Your task to perform on an android device: change notifications settings Image 0: 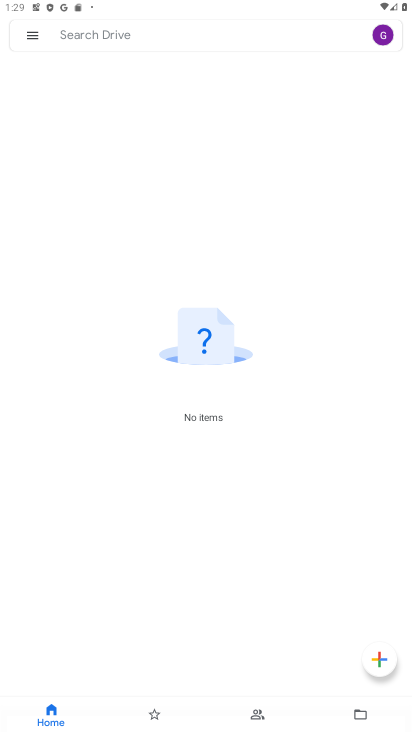
Step 0: press home button
Your task to perform on an android device: change notifications settings Image 1: 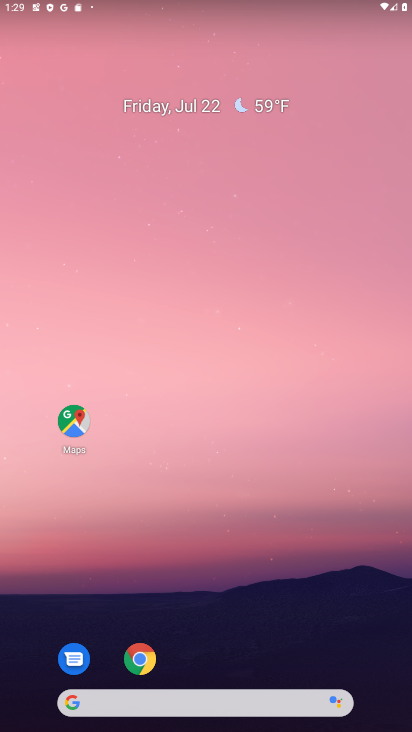
Step 1: drag from (374, 583) to (262, 1)
Your task to perform on an android device: change notifications settings Image 2: 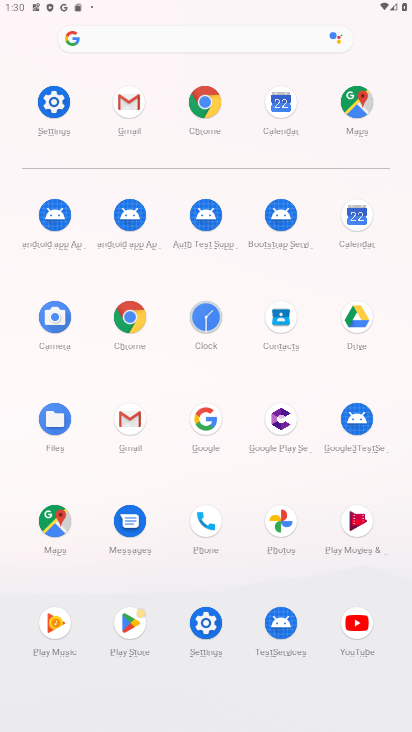
Step 2: click (56, 93)
Your task to perform on an android device: change notifications settings Image 3: 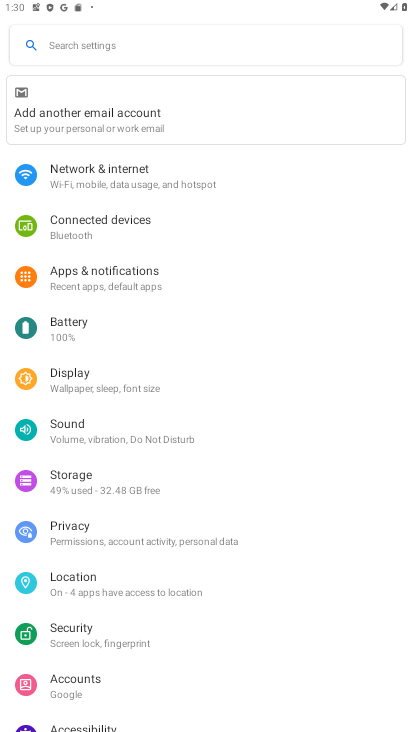
Step 3: click (134, 283)
Your task to perform on an android device: change notifications settings Image 4: 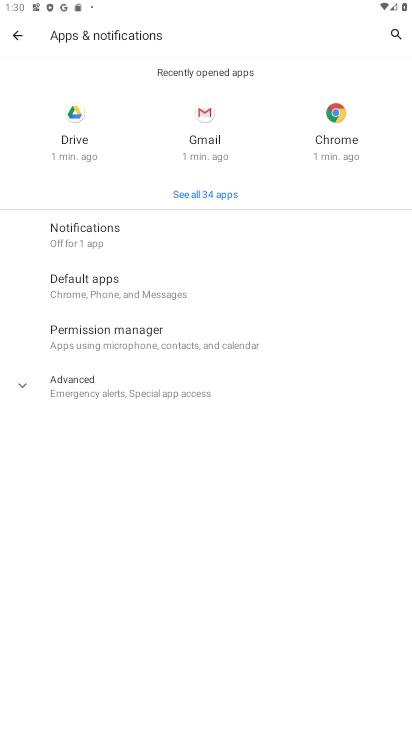
Step 4: click (72, 235)
Your task to perform on an android device: change notifications settings Image 5: 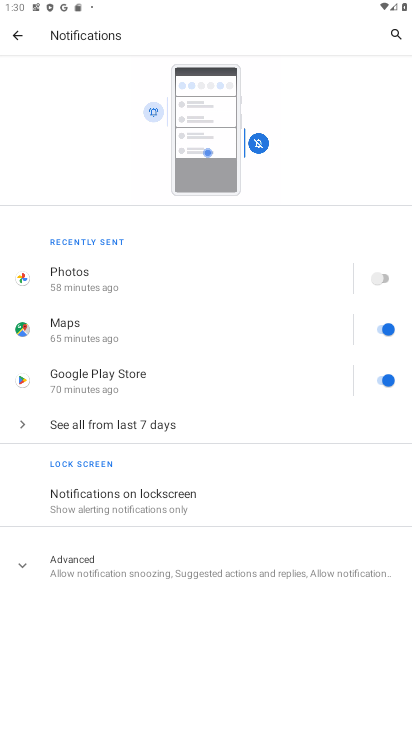
Step 5: click (387, 324)
Your task to perform on an android device: change notifications settings Image 6: 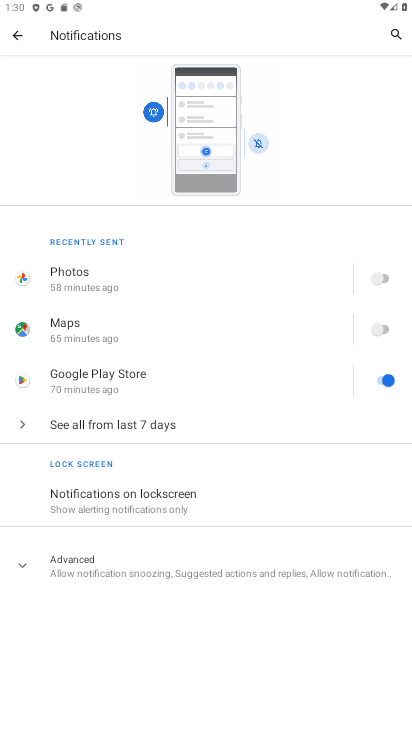
Step 6: task complete